Your task to perform on an android device: Do I have any events this weekend? Image 0: 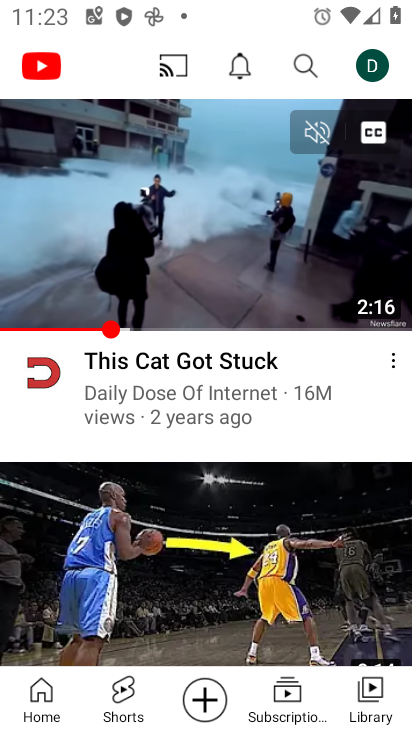
Step 0: press home button
Your task to perform on an android device: Do I have any events this weekend? Image 1: 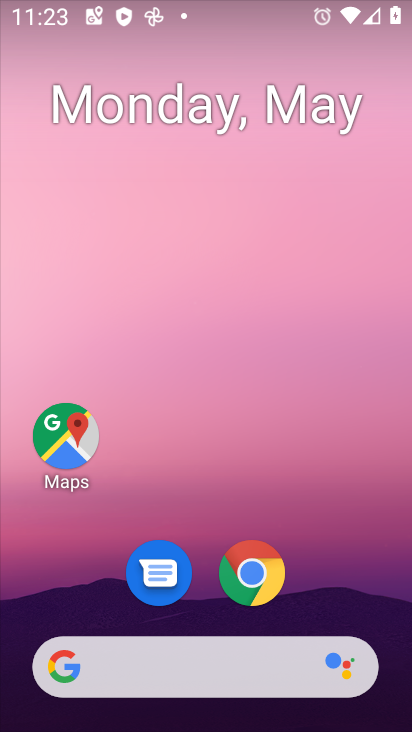
Step 1: drag from (339, 585) to (280, 58)
Your task to perform on an android device: Do I have any events this weekend? Image 2: 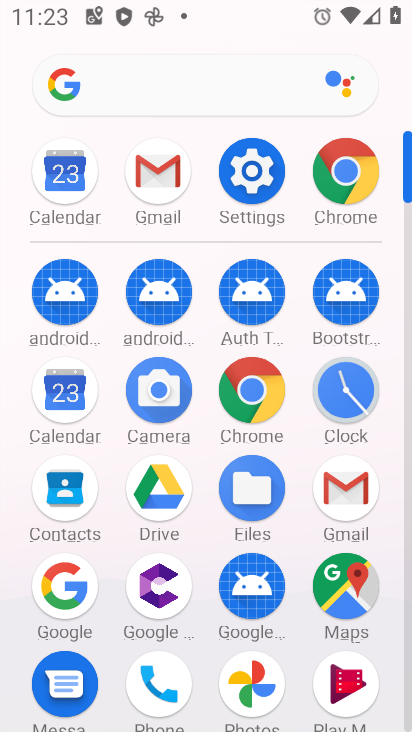
Step 2: click (82, 406)
Your task to perform on an android device: Do I have any events this weekend? Image 3: 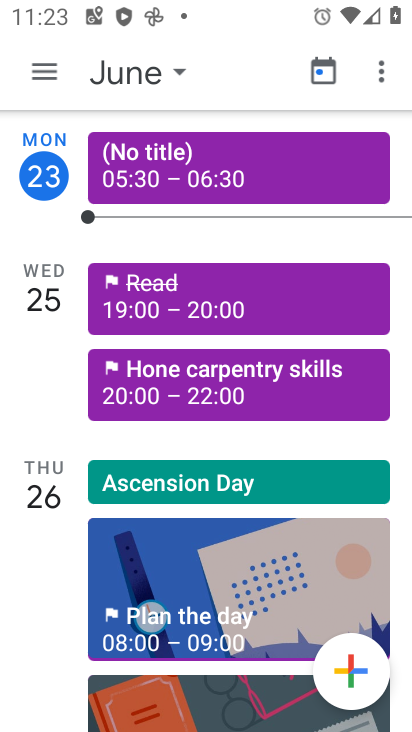
Step 3: task complete